Your task to perform on an android device: Open Google Maps and go to "Timeline" Image 0: 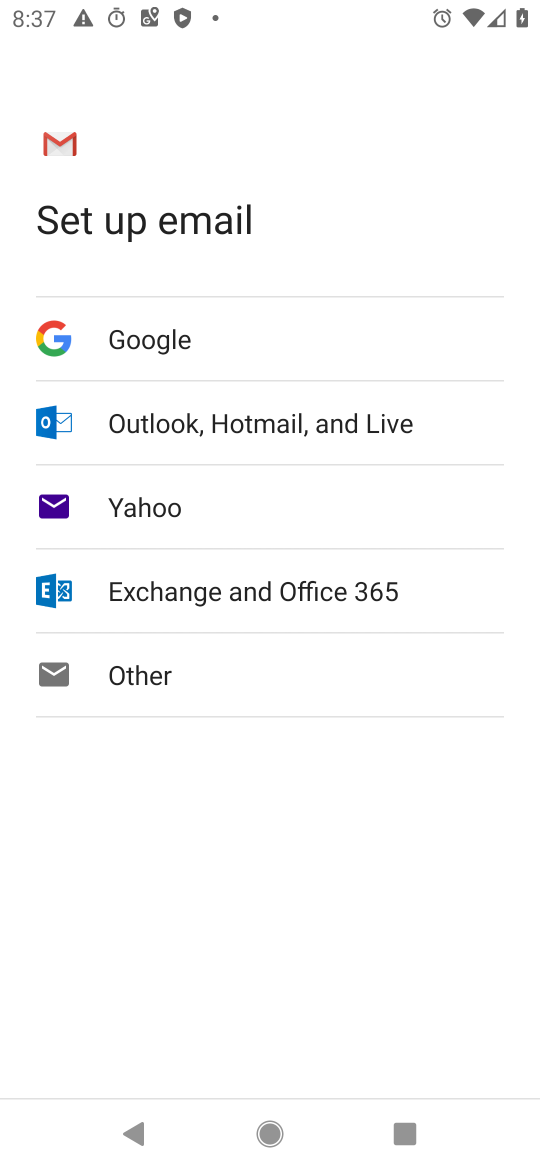
Step 0: press home button
Your task to perform on an android device: Open Google Maps and go to "Timeline" Image 1: 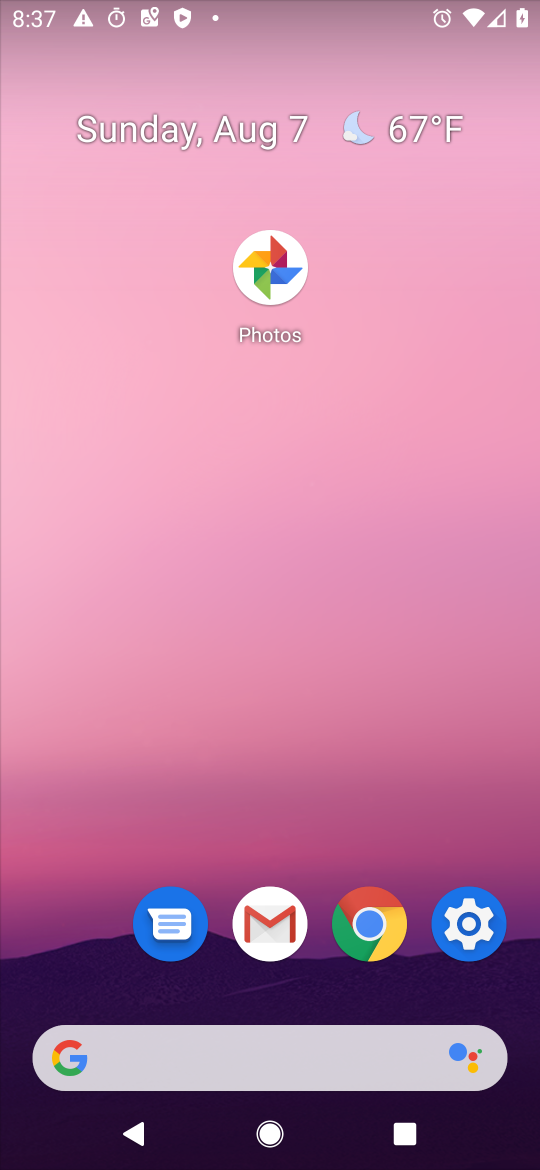
Step 1: drag from (315, 1067) to (306, 188)
Your task to perform on an android device: Open Google Maps and go to "Timeline" Image 2: 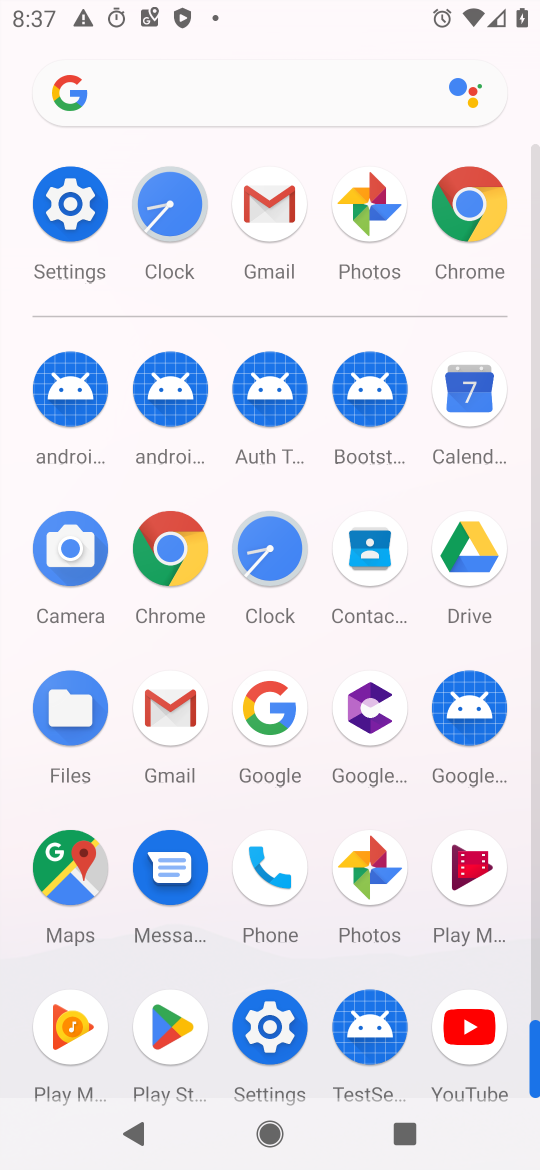
Step 2: click (62, 898)
Your task to perform on an android device: Open Google Maps and go to "Timeline" Image 3: 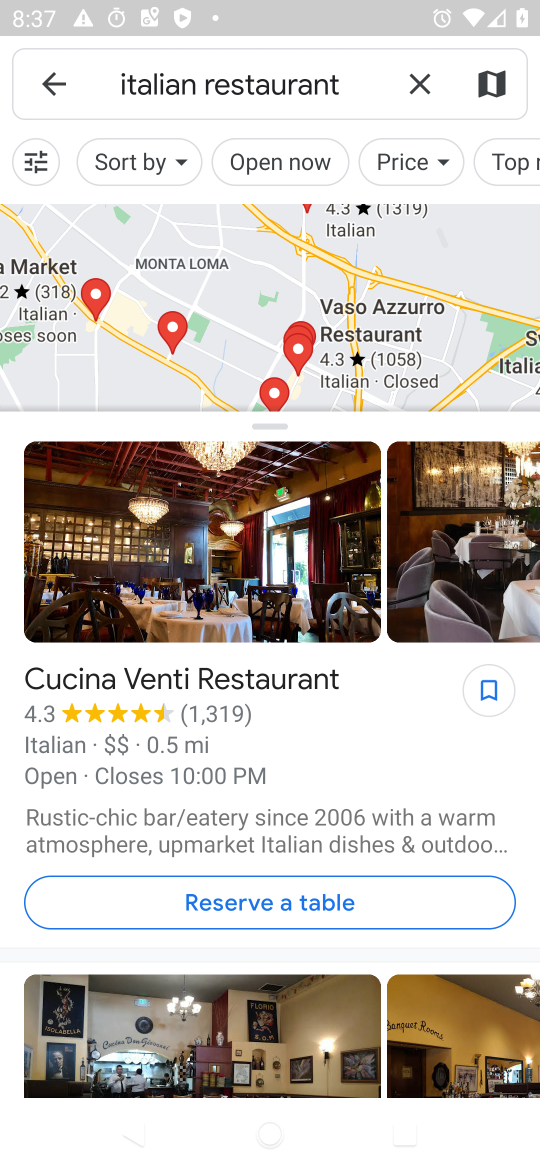
Step 3: click (56, 85)
Your task to perform on an android device: Open Google Maps and go to "Timeline" Image 4: 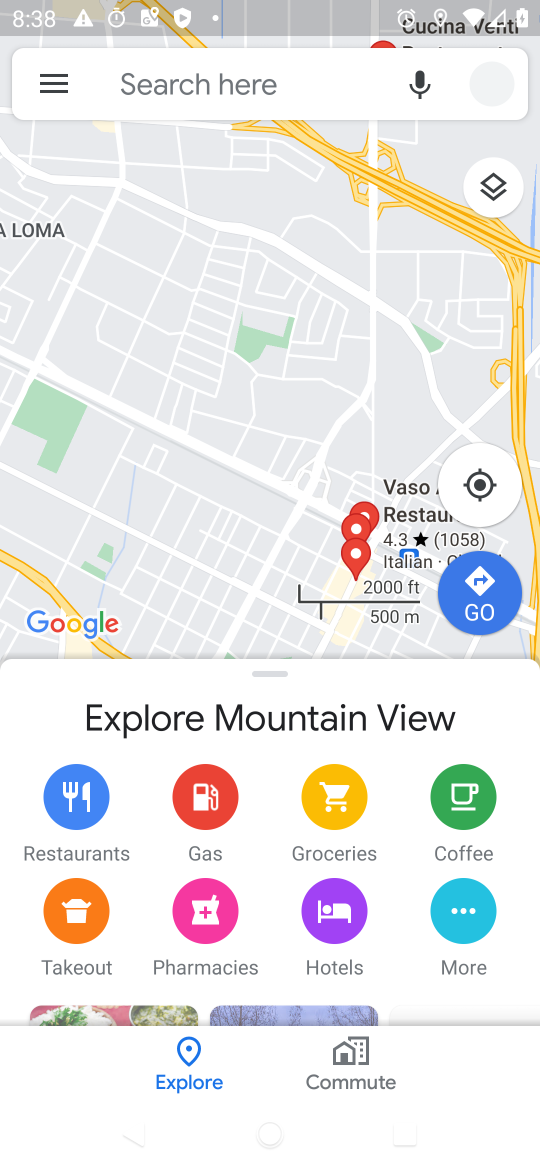
Step 4: click (59, 85)
Your task to perform on an android device: Open Google Maps and go to "Timeline" Image 5: 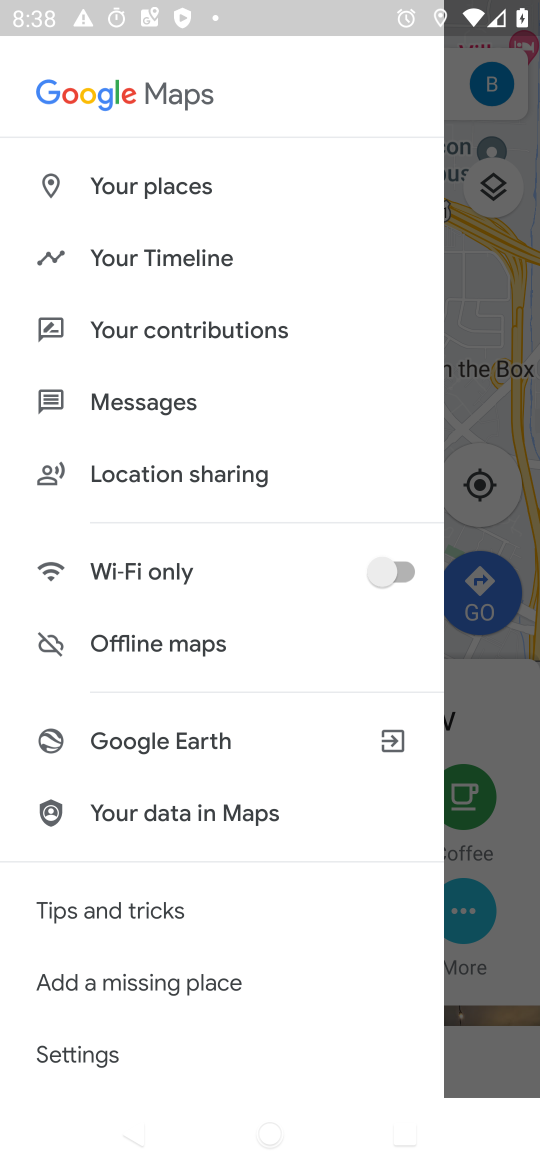
Step 5: click (157, 256)
Your task to perform on an android device: Open Google Maps and go to "Timeline" Image 6: 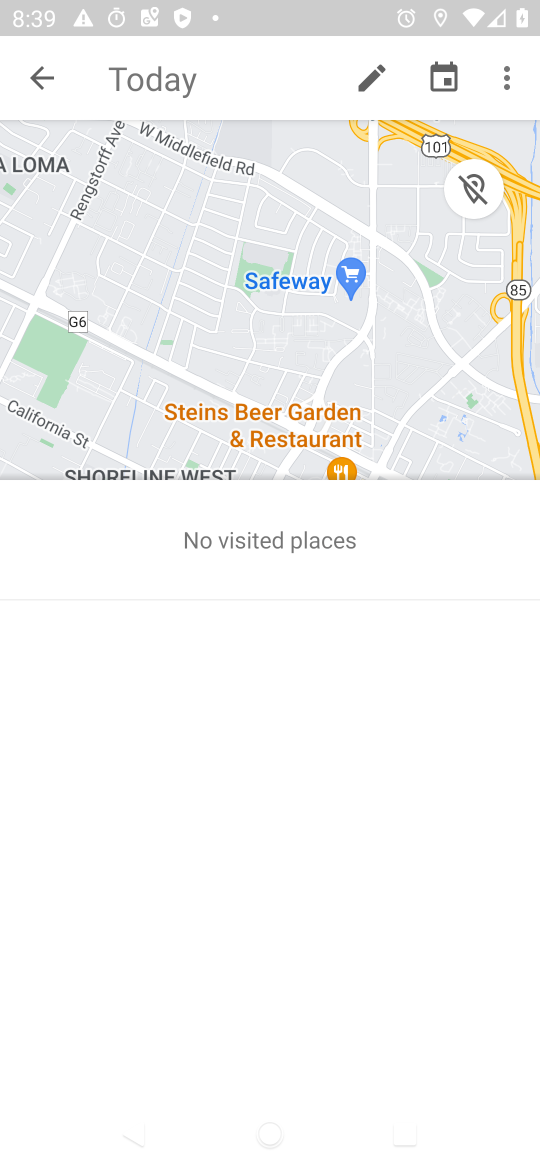
Step 6: task complete